Your task to perform on an android device: Toggle the flashlight Image 0: 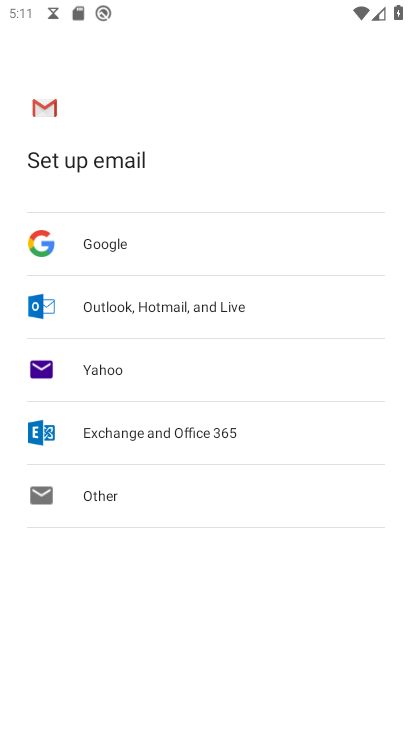
Step 0: press home button
Your task to perform on an android device: Toggle the flashlight Image 1: 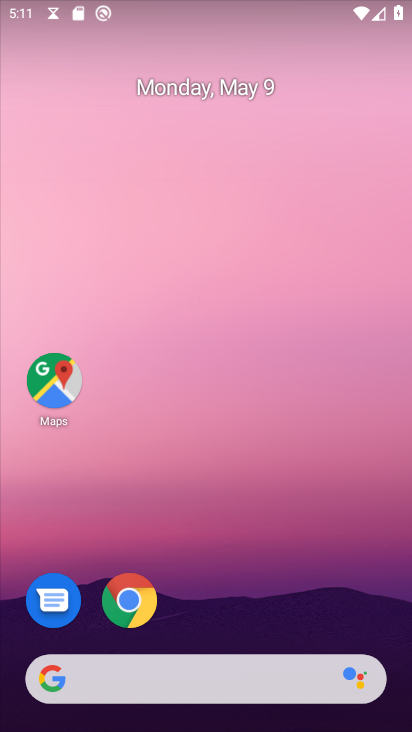
Step 1: task complete